Your task to perform on an android device: What's the weather? Image 0: 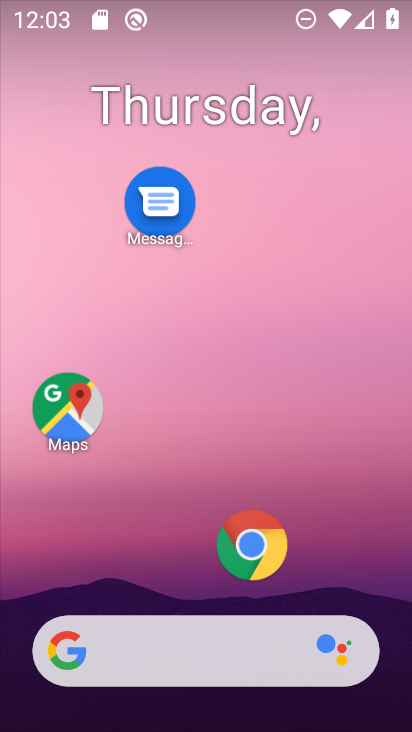
Step 0: drag from (225, 547) to (256, 169)
Your task to perform on an android device: What's the weather? Image 1: 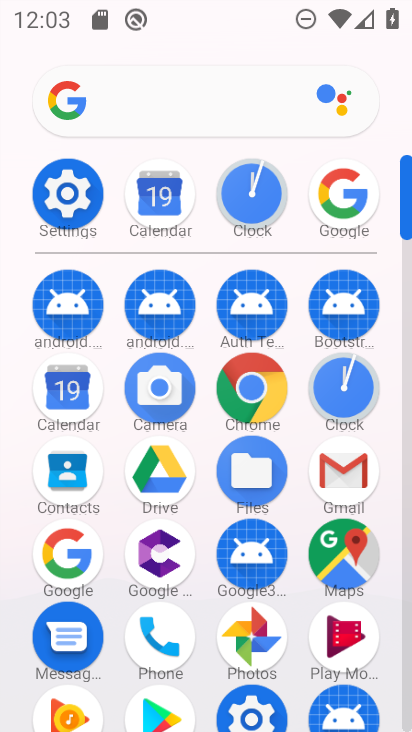
Step 1: click (87, 558)
Your task to perform on an android device: What's the weather? Image 2: 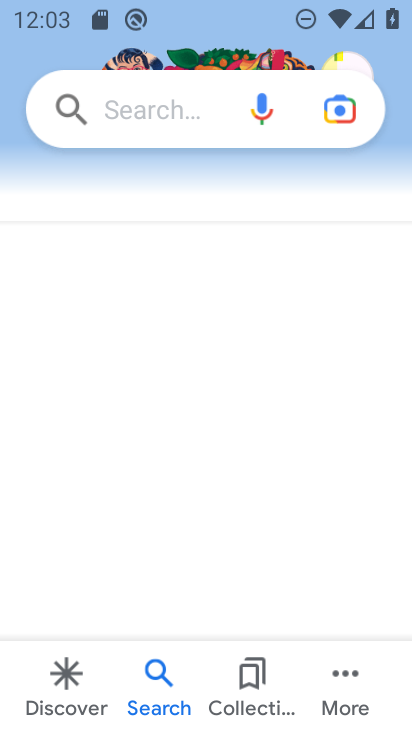
Step 2: click (190, 120)
Your task to perform on an android device: What's the weather? Image 3: 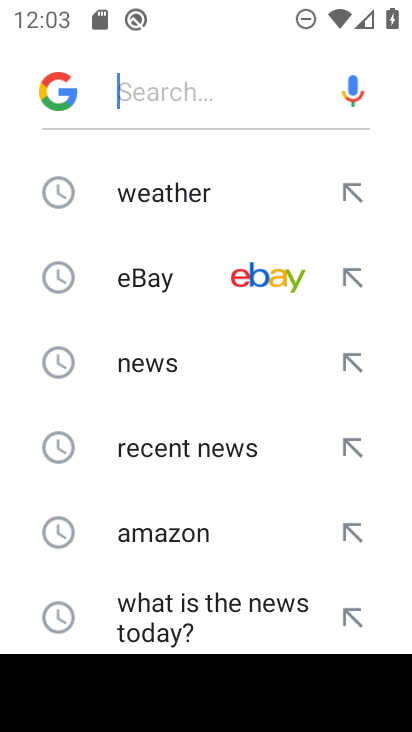
Step 3: click (172, 182)
Your task to perform on an android device: What's the weather? Image 4: 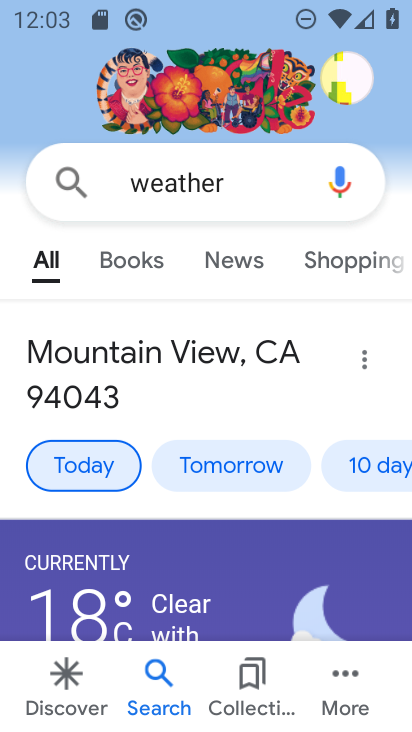
Step 4: task complete